Your task to perform on an android device: Search for Mexican restaurants on Maps Image 0: 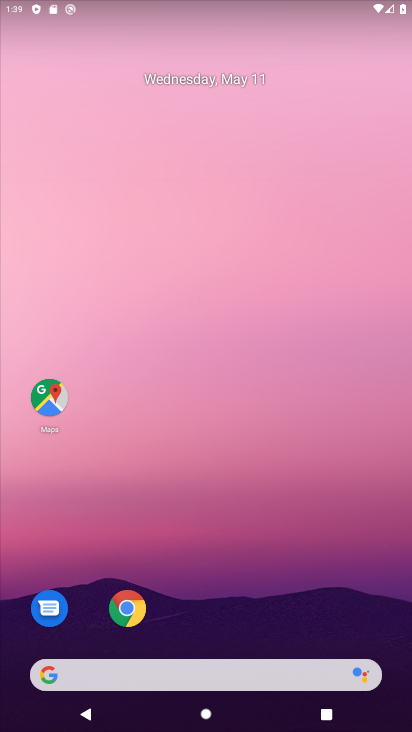
Step 0: drag from (223, 338) to (206, 210)
Your task to perform on an android device: Search for Mexican restaurants on Maps Image 1: 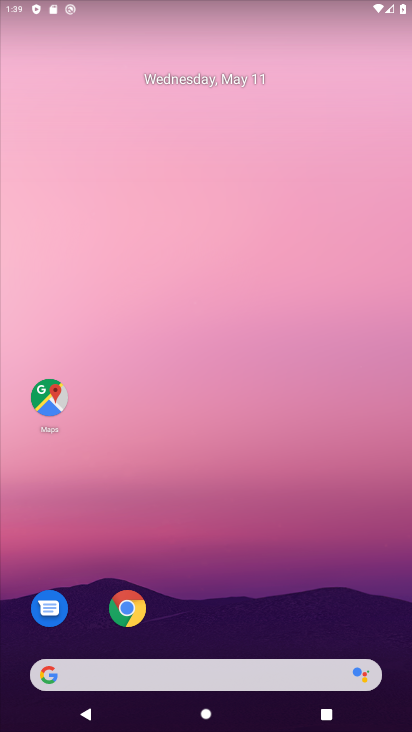
Step 1: click (45, 397)
Your task to perform on an android device: Search for Mexican restaurants on Maps Image 2: 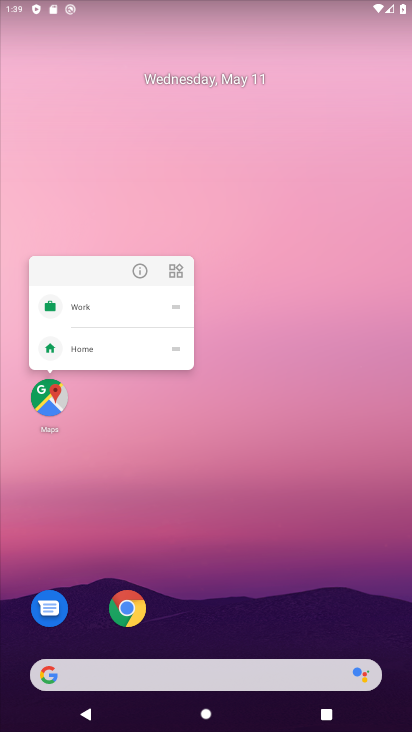
Step 2: click (43, 395)
Your task to perform on an android device: Search for Mexican restaurants on Maps Image 3: 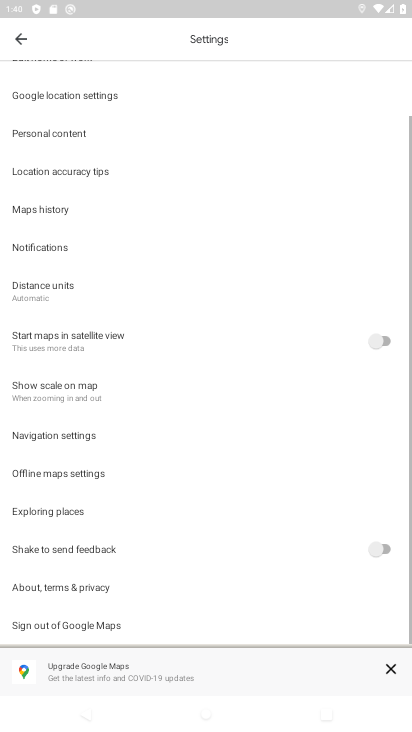
Step 3: click (17, 28)
Your task to perform on an android device: Search for Mexican restaurants on Maps Image 4: 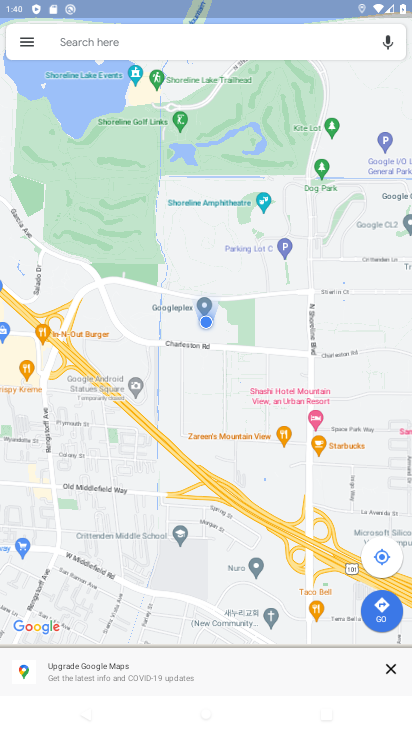
Step 4: click (95, 39)
Your task to perform on an android device: Search for Mexican restaurants on Maps Image 5: 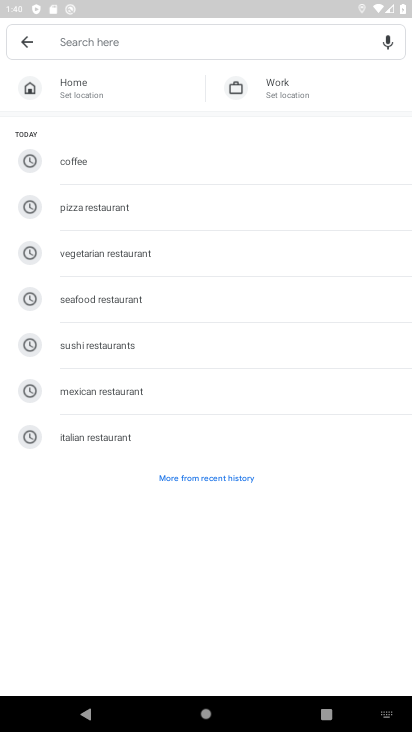
Step 5: click (305, 384)
Your task to perform on an android device: Search for Mexican restaurants on Maps Image 6: 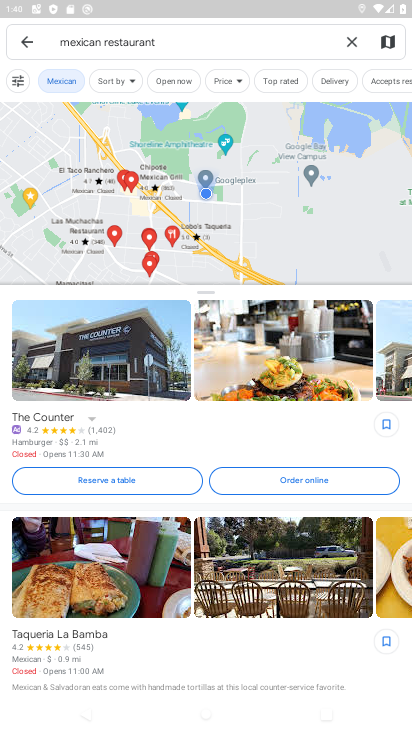
Step 6: task complete